Your task to perform on an android device: delete location history Image 0: 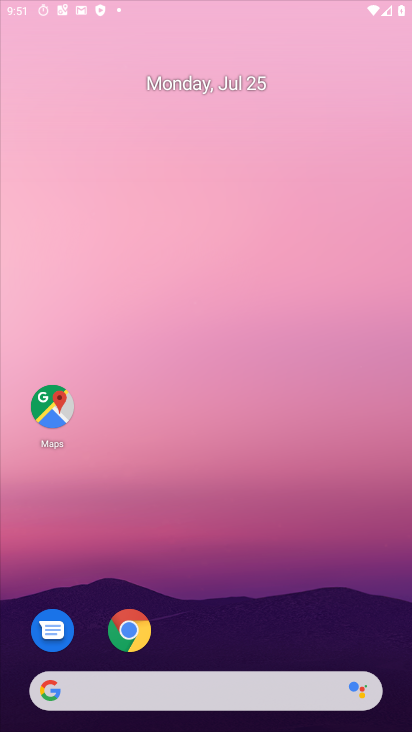
Step 0: press home button
Your task to perform on an android device: delete location history Image 1: 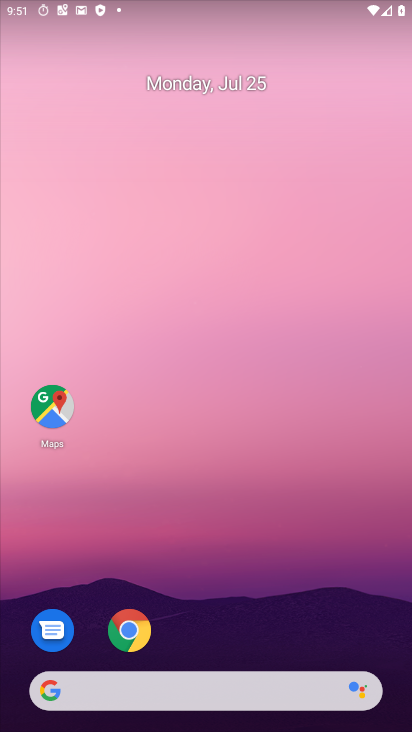
Step 1: drag from (271, 596) to (257, 14)
Your task to perform on an android device: delete location history Image 2: 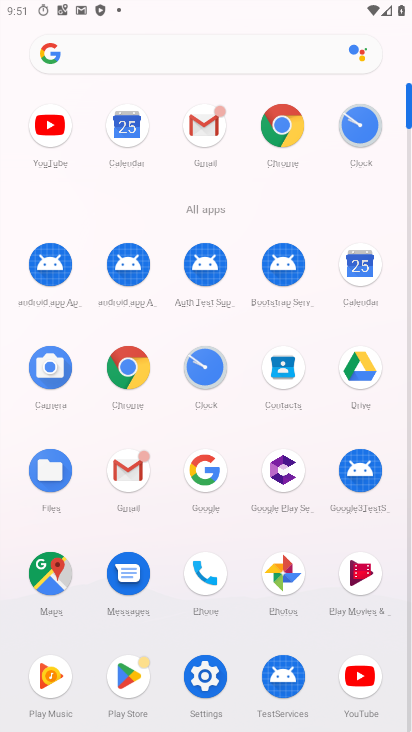
Step 2: click (47, 571)
Your task to perform on an android device: delete location history Image 3: 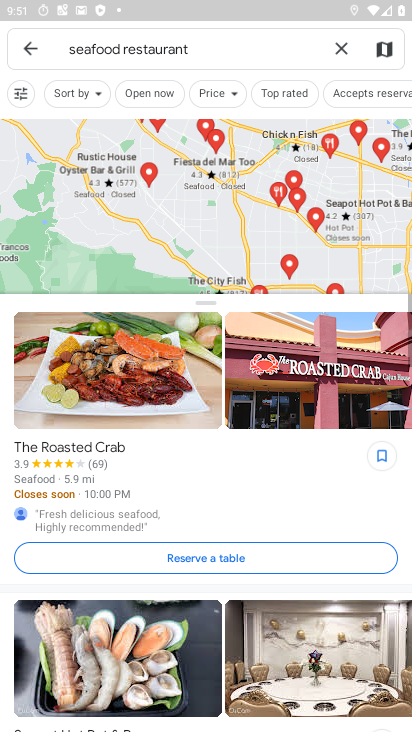
Step 3: click (35, 47)
Your task to perform on an android device: delete location history Image 4: 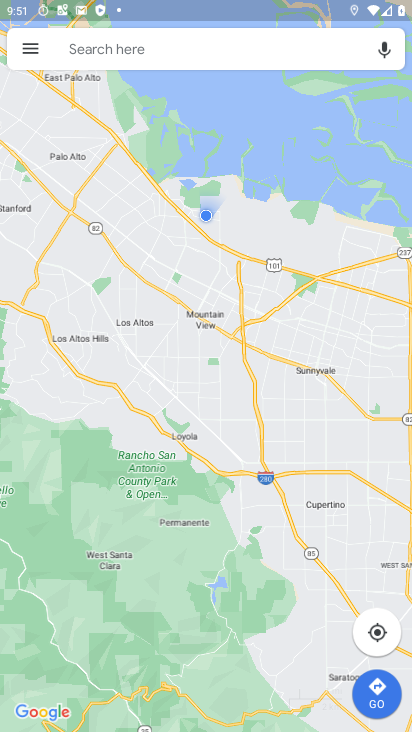
Step 4: click (36, 44)
Your task to perform on an android device: delete location history Image 5: 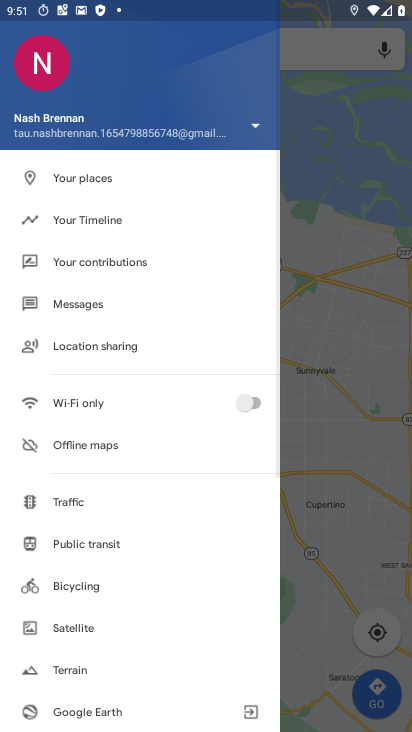
Step 5: click (86, 217)
Your task to perform on an android device: delete location history Image 6: 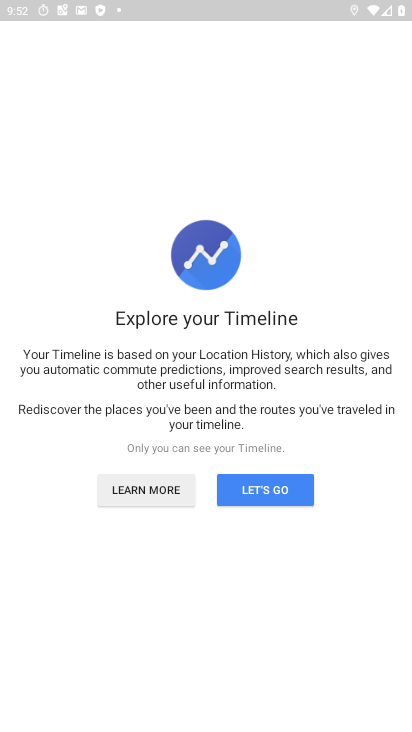
Step 6: click (286, 491)
Your task to perform on an android device: delete location history Image 7: 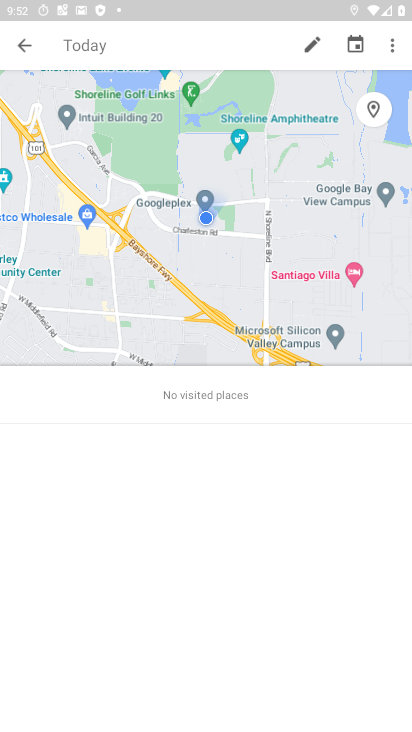
Step 7: click (389, 36)
Your task to perform on an android device: delete location history Image 8: 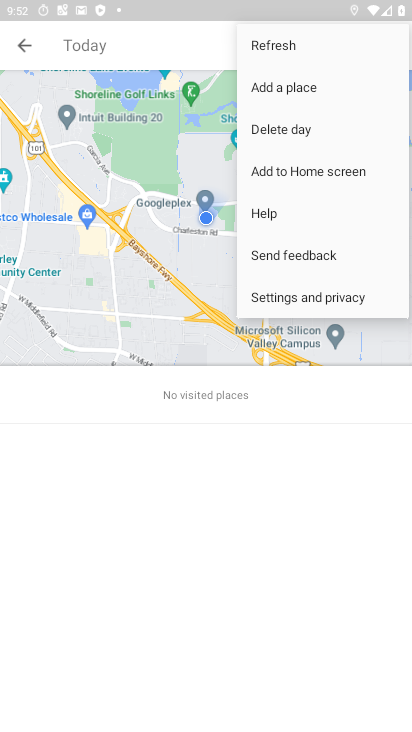
Step 8: click (308, 295)
Your task to perform on an android device: delete location history Image 9: 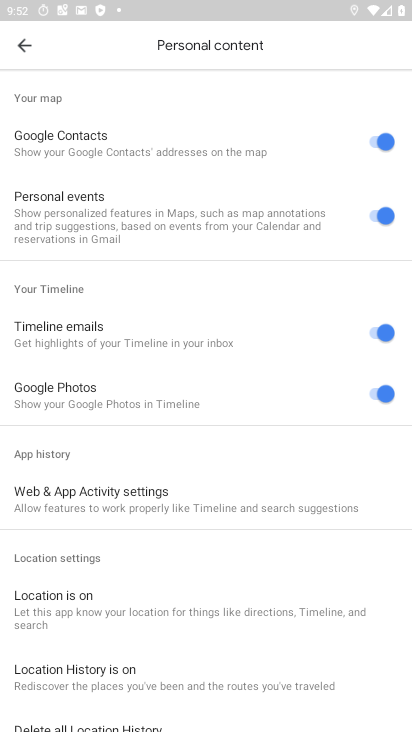
Step 9: drag from (221, 639) to (208, 247)
Your task to perform on an android device: delete location history Image 10: 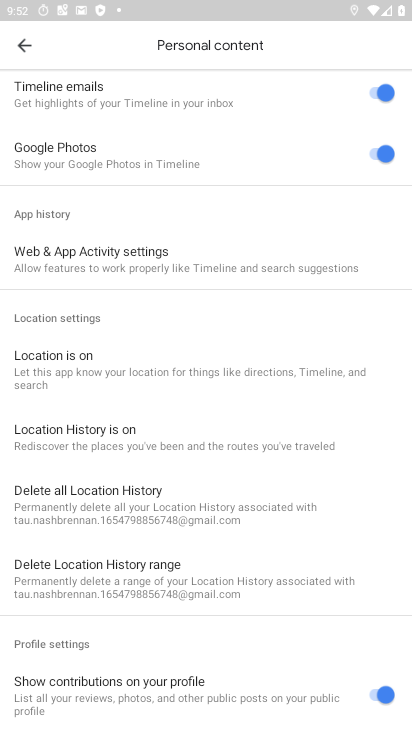
Step 10: click (94, 498)
Your task to perform on an android device: delete location history Image 11: 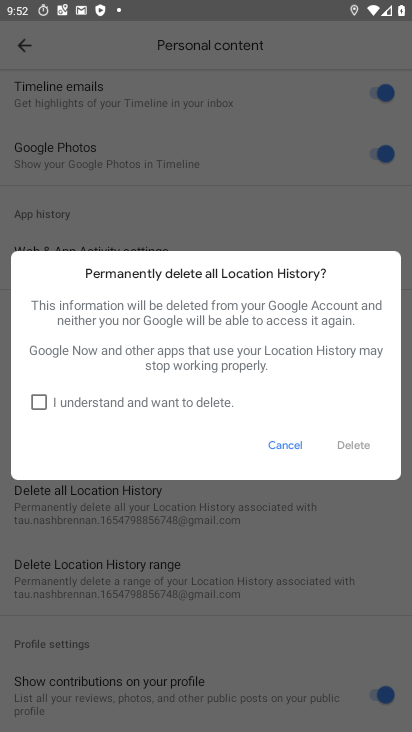
Step 11: click (45, 402)
Your task to perform on an android device: delete location history Image 12: 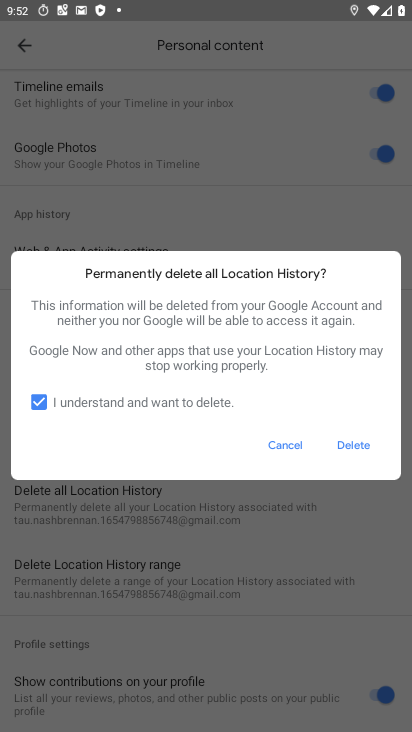
Step 12: click (351, 442)
Your task to perform on an android device: delete location history Image 13: 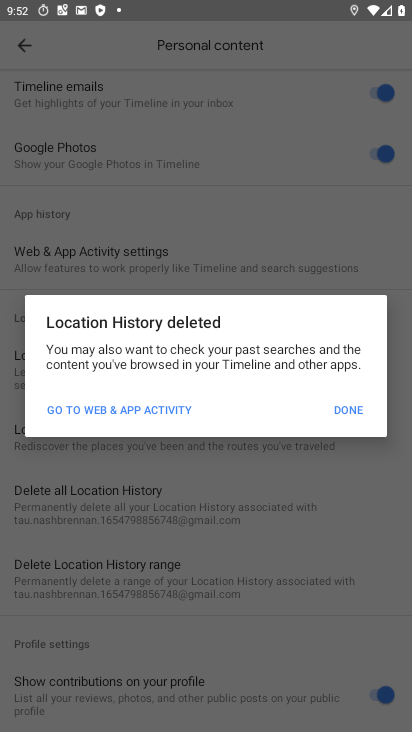
Step 13: click (349, 411)
Your task to perform on an android device: delete location history Image 14: 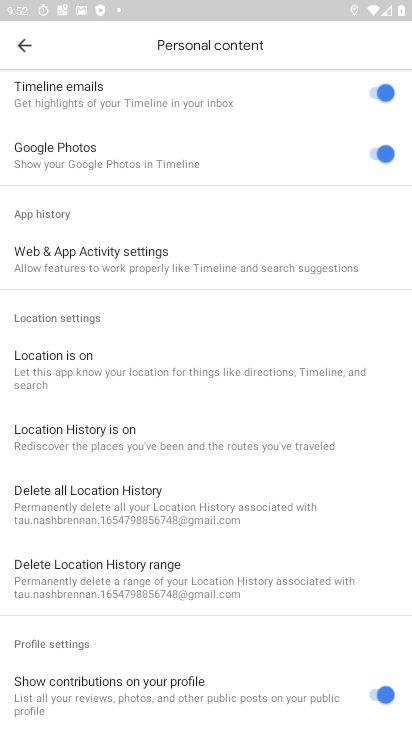
Step 14: task complete